Your task to perform on an android device: open chrome and create a bookmark for the current page Image 0: 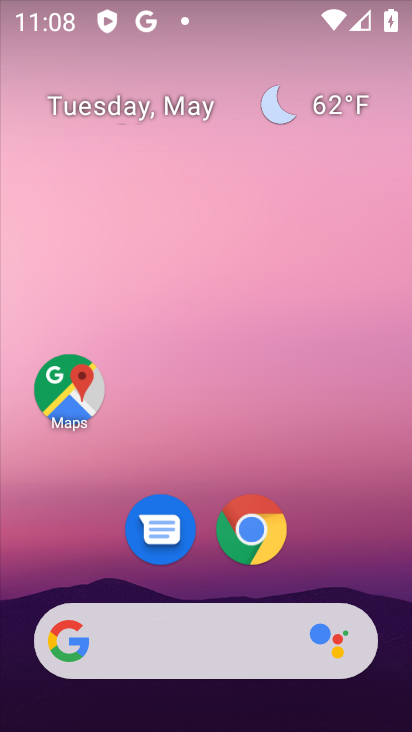
Step 0: click (251, 545)
Your task to perform on an android device: open chrome and create a bookmark for the current page Image 1: 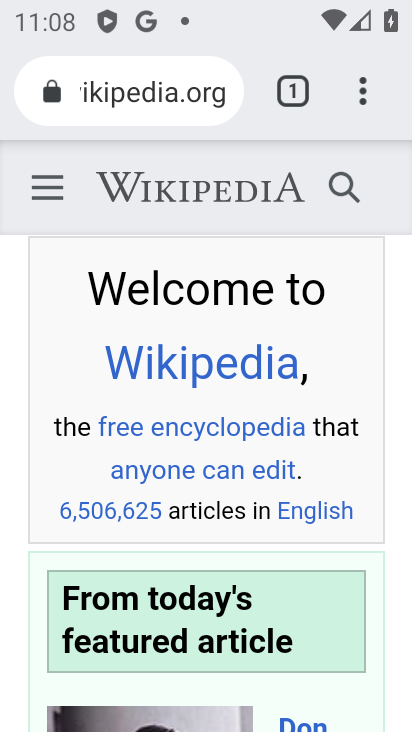
Step 1: click (290, 87)
Your task to perform on an android device: open chrome and create a bookmark for the current page Image 2: 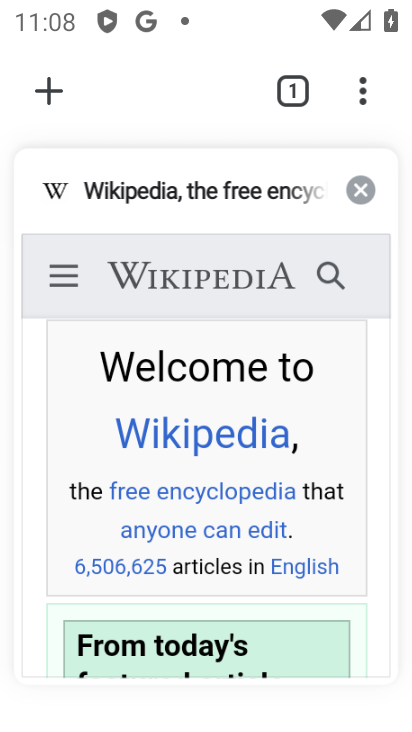
Step 2: click (267, 205)
Your task to perform on an android device: open chrome and create a bookmark for the current page Image 3: 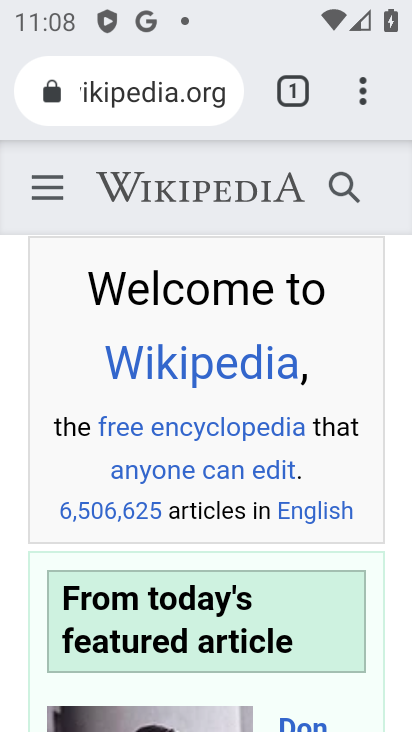
Step 3: click (358, 86)
Your task to perform on an android device: open chrome and create a bookmark for the current page Image 4: 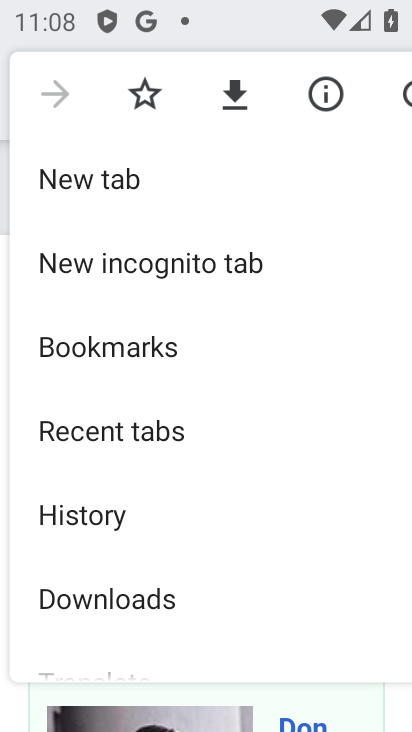
Step 4: click (151, 93)
Your task to perform on an android device: open chrome and create a bookmark for the current page Image 5: 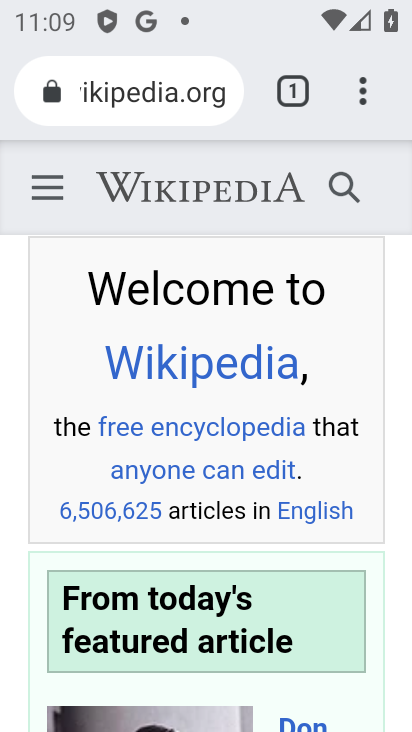
Step 5: task complete